Your task to perform on an android device: find which apps use the phone's location Image 0: 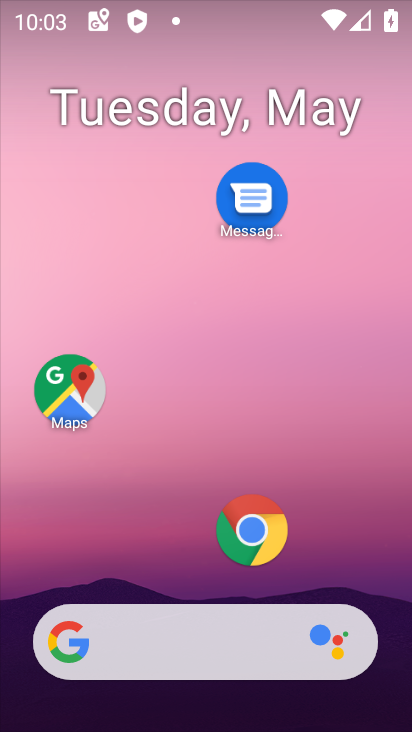
Step 0: drag from (184, 571) to (173, 59)
Your task to perform on an android device: find which apps use the phone's location Image 1: 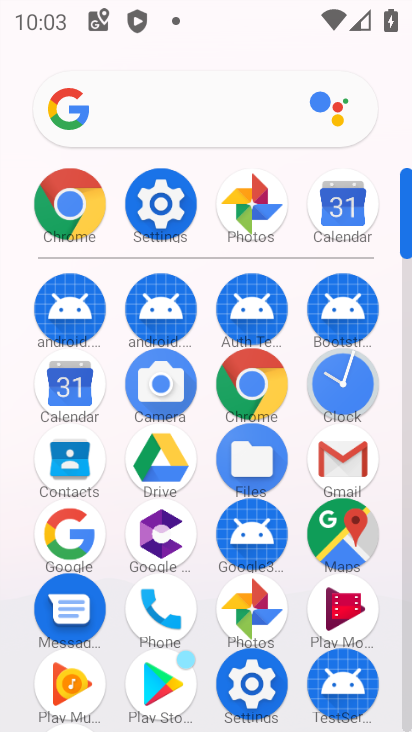
Step 1: click (159, 204)
Your task to perform on an android device: find which apps use the phone's location Image 2: 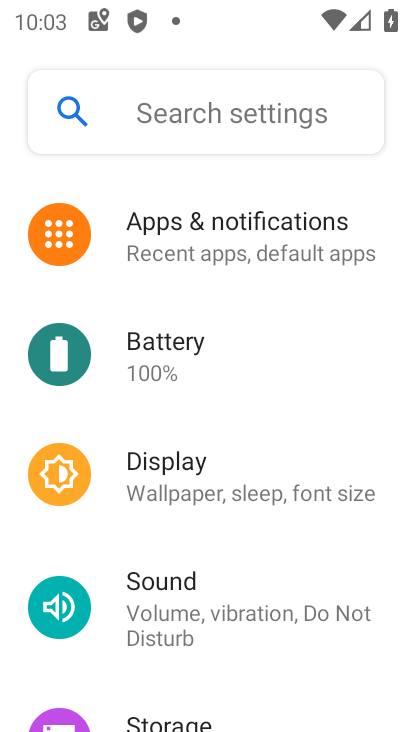
Step 2: drag from (215, 539) to (205, 188)
Your task to perform on an android device: find which apps use the phone's location Image 3: 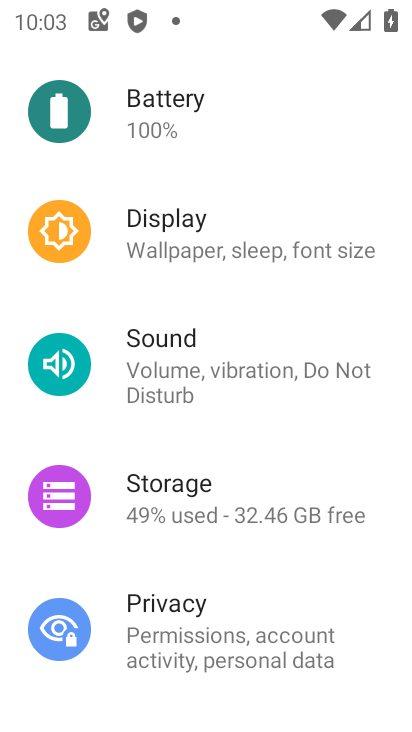
Step 3: drag from (149, 556) to (151, 218)
Your task to perform on an android device: find which apps use the phone's location Image 4: 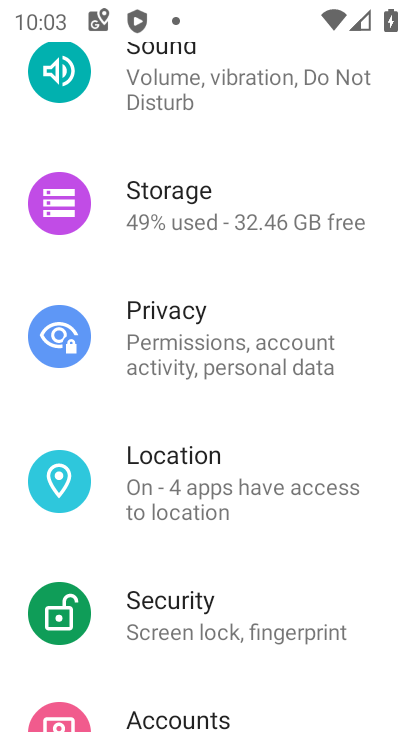
Step 4: click (143, 471)
Your task to perform on an android device: find which apps use the phone's location Image 5: 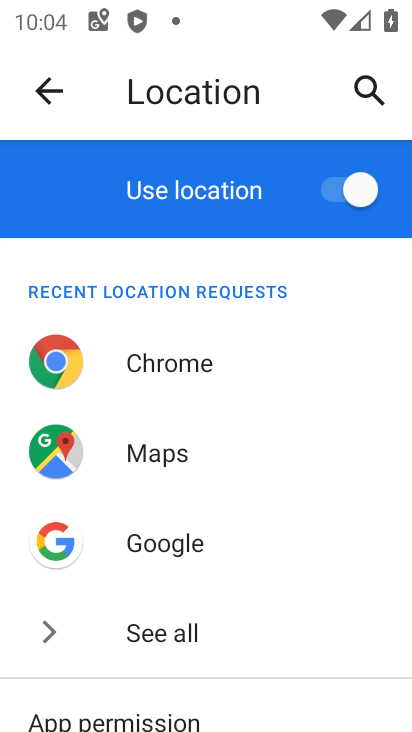
Step 5: drag from (214, 573) to (186, 225)
Your task to perform on an android device: find which apps use the phone's location Image 6: 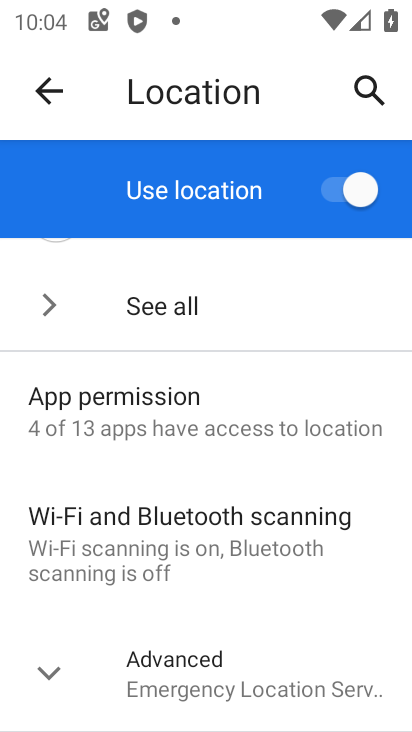
Step 6: click (110, 413)
Your task to perform on an android device: find which apps use the phone's location Image 7: 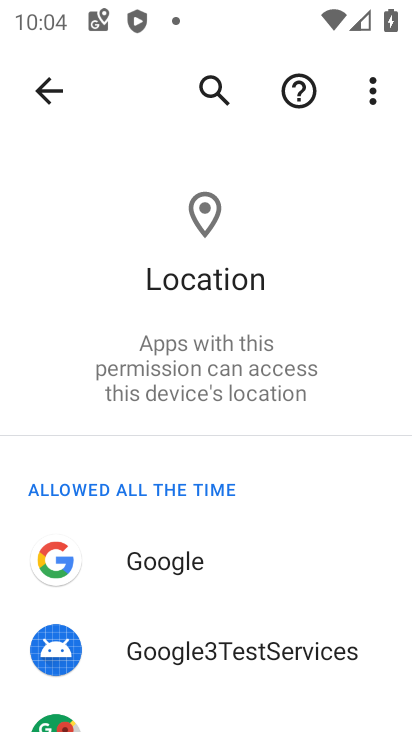
Step 7: task complete